Your task to perform on an android device: Open accessibility settings Image 0: 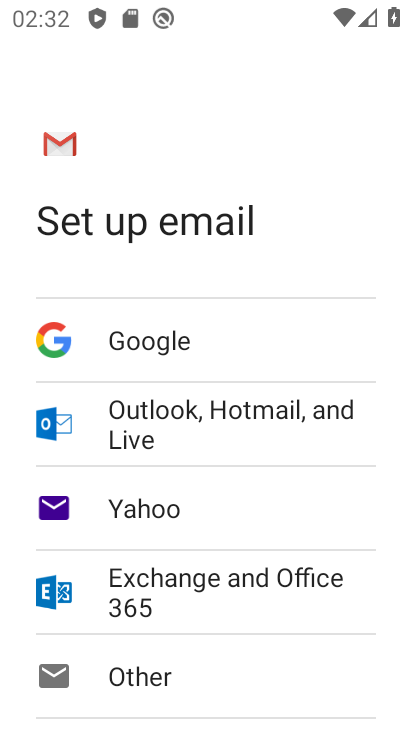
Step 0: press home button
Your task to perform on an android device: Open accessibility settings Image 1: 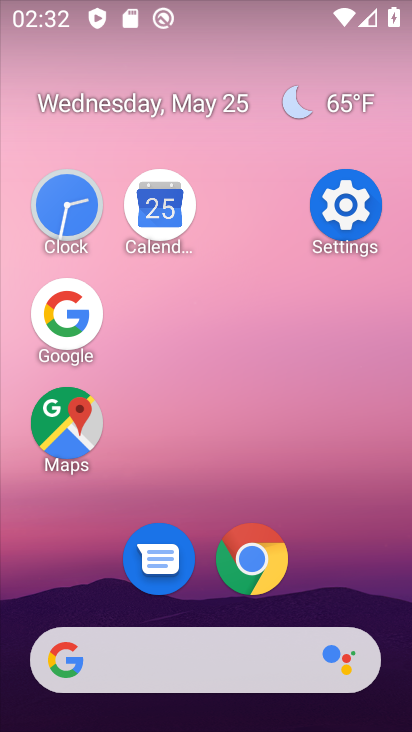
Step 1: click (354, 202)
Your task to perform on an android device: Open accessibility settings Image 2: 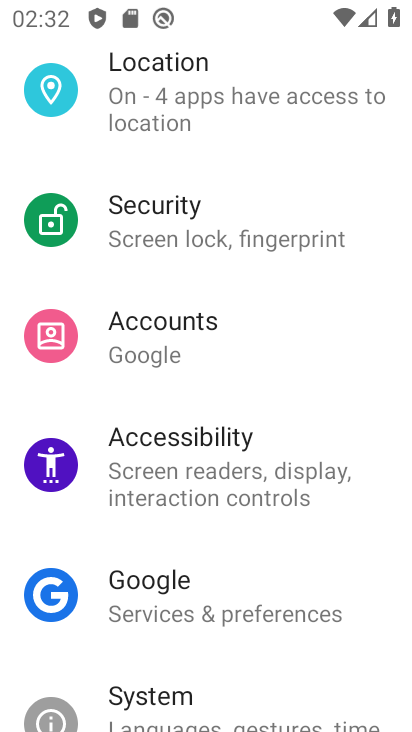
Step 2: click (261, 464)
Your task to perform on an android device: Open accessibility settings Image 3: 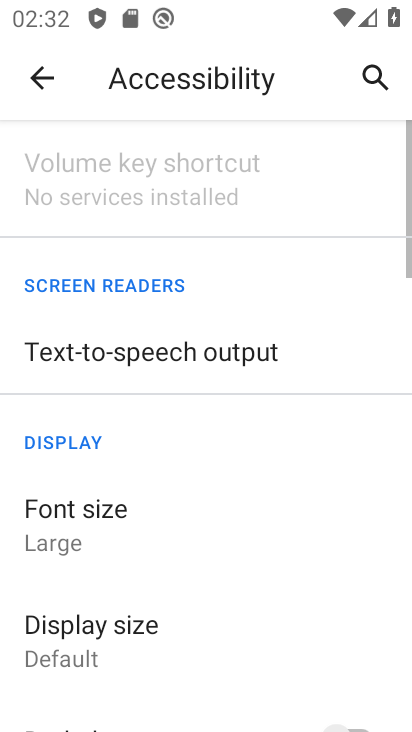
Step 3: task complete